Your task to perform on an android device: turn on data saver in the chrome app Image 0: 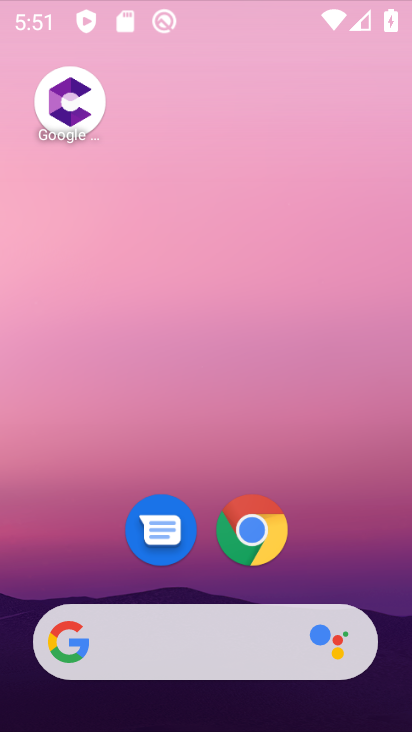
Step 0: click (218, 359)
Your task to perform on an android device: turn on data saver in the chrome app Image 1: 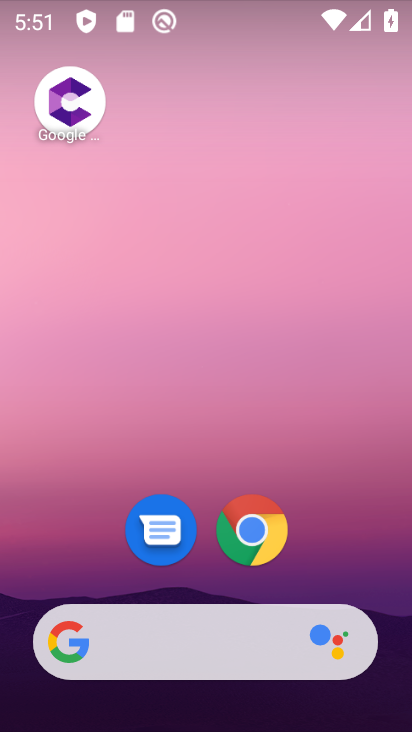
Step 1: click (244, 370)
Your task to perform on an android device: turn on data saver in the chrome app Image 2: 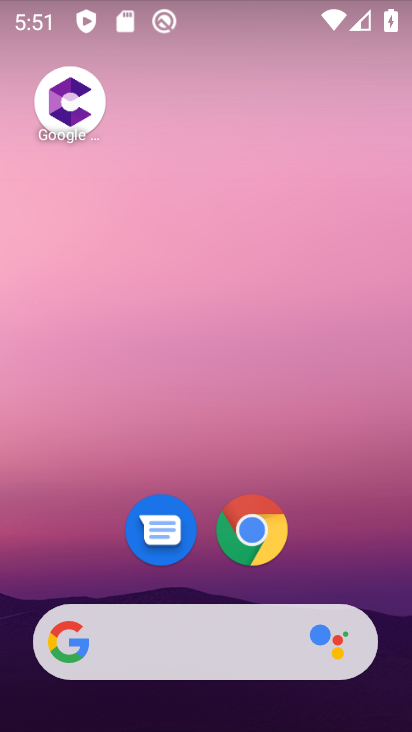
Step 2: drag from (207, 585) to (291, 49)
Your task to perform on an android device: turn on data saver in the chrome app Image 3: 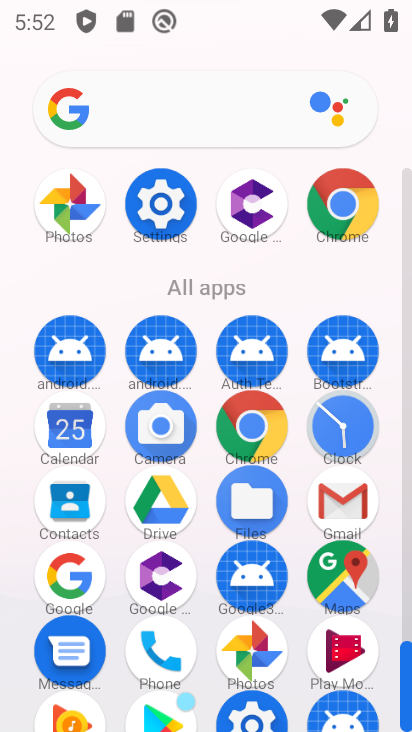
Step 3: click (254, 418)
Your task to perform on an android device: turn on data saver in the chrome app Image 4: 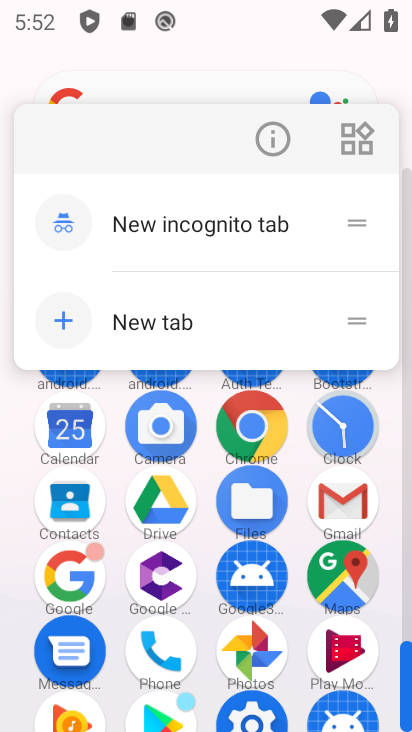
Step 4: click (257, 416)
Your task to perform on an android device: turn on data saver in the chrome app Image 5: 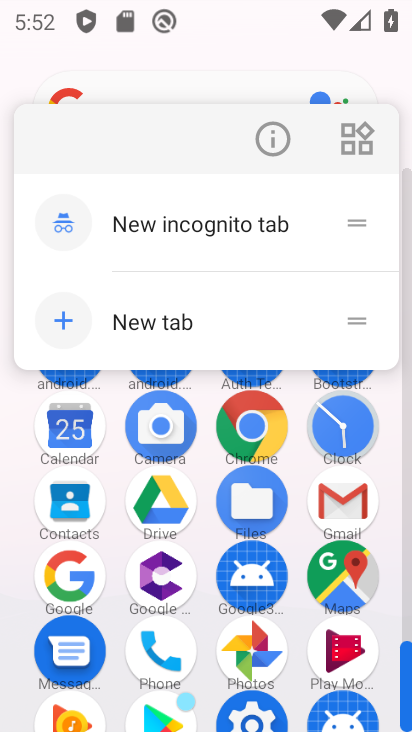
Step 5: click (248, 421)
Your task to perform on an android device: turn on data saver in the chrome app Image 6: 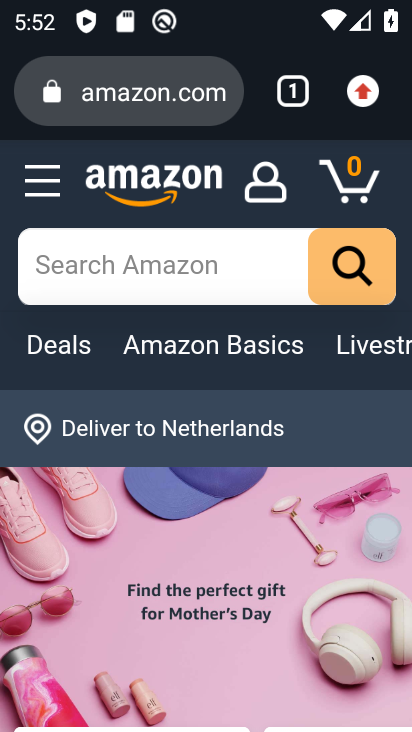
Step 6: click (364, 96)
Your task to perform on an android device: turn on data saver in the chrome app Image 7: 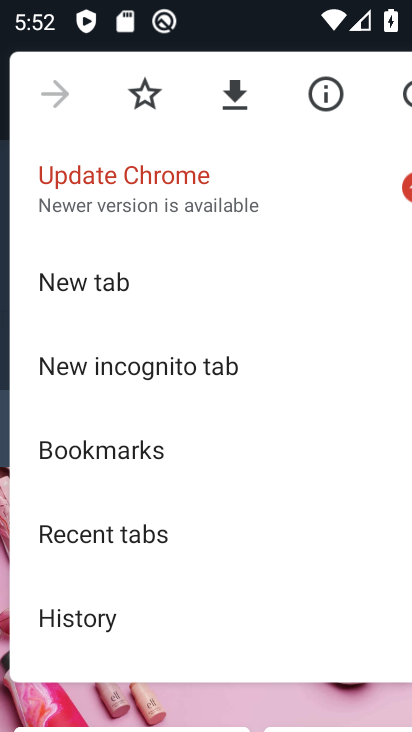
Step 7: drag from (143, 651) to (173, 154)
Your task to perform on an android device: turn on data saver in the chrome app Image 8: 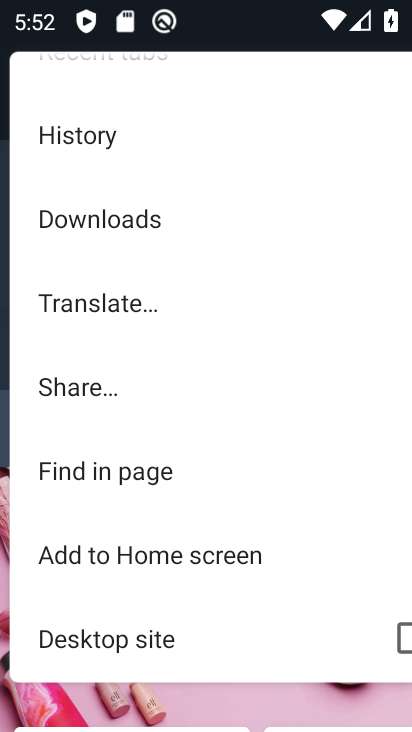
Step 8: drag from (165, 615) to (229, 61)
Your task to perform on an android device: turn on data saver in the chrome app Image 9: 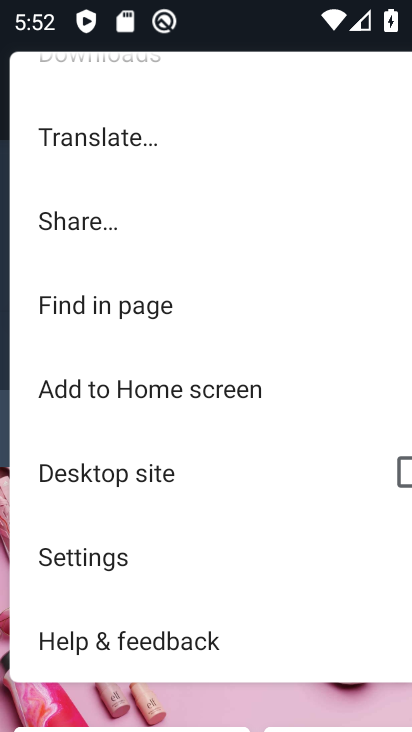
Step 9: click (157, 570)
Your task to perform on an android device: turn on data saver in the chrome app Image 10: 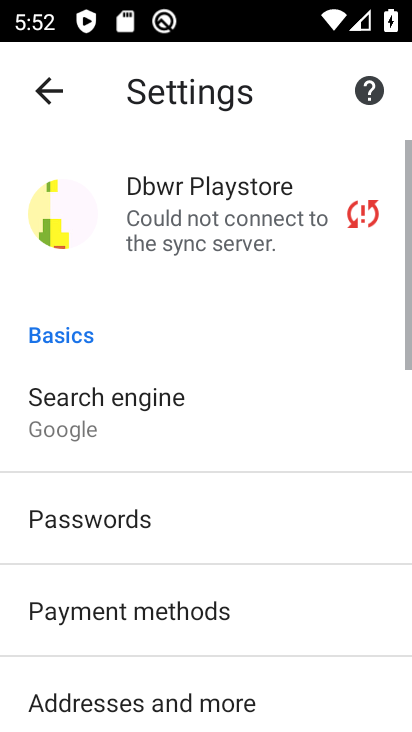
Step 10: drag from (213, 641) to (264, 73)
Your task to perform on an android device: turn on data saver in the chrome app Image 11: 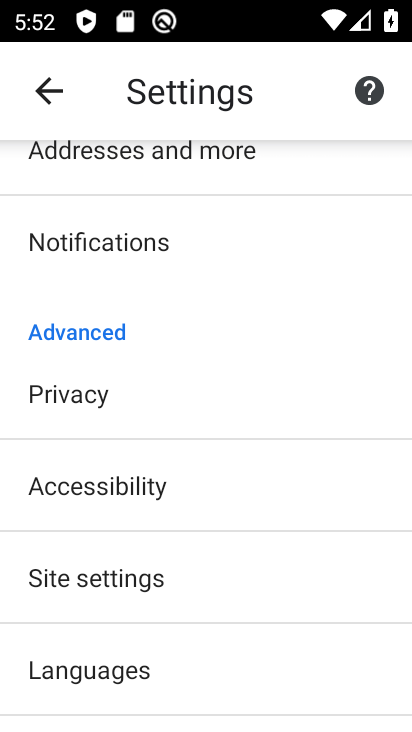
Step 11: drag from (201, 648) to (203, 283)
Your task to perform on an android device: turn on data saver in the chrome app Image 12: 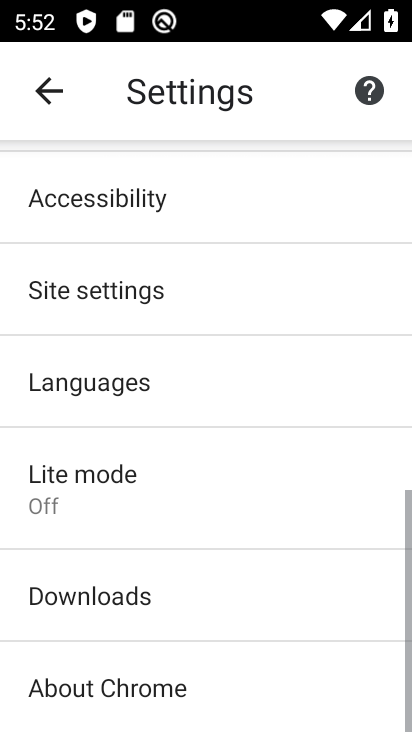
Step 12: click (84, 489)
Your task to perform on an android device: turn on data saver in the chrome app Image 13: 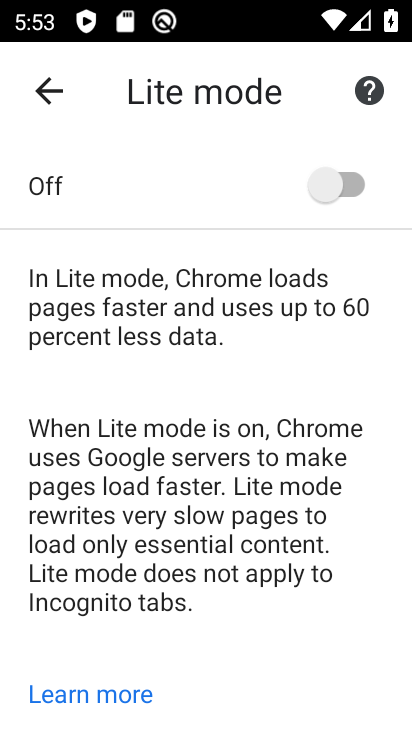
Step 13: click (334, 183)
Your task to perform on an android device: turn on data saver in the chrome app Image 14: 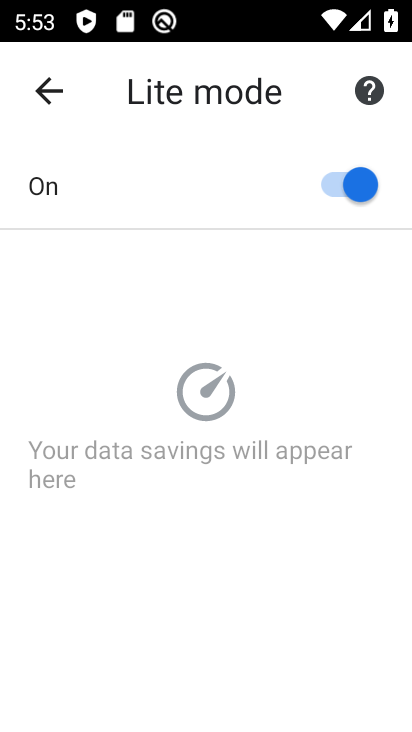
Step 14: task complete